Your task to perform on an android device: turn pop-ups on in chrome Image 0: 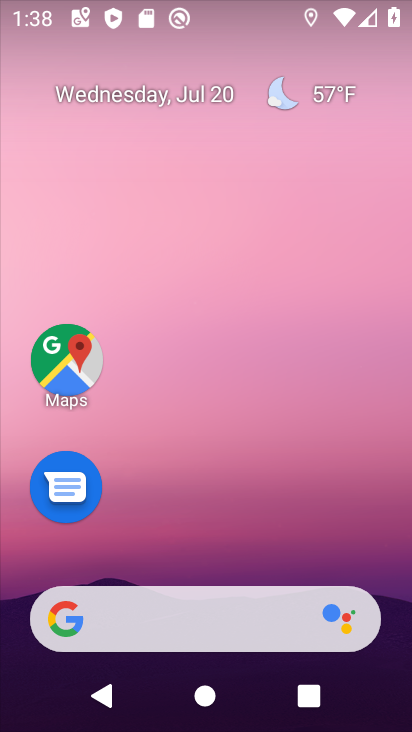
Step 0: drag from (167, 575) to (230, 64)
Your task to perform on an android device: turn pop-ups on in chrome Image 1: 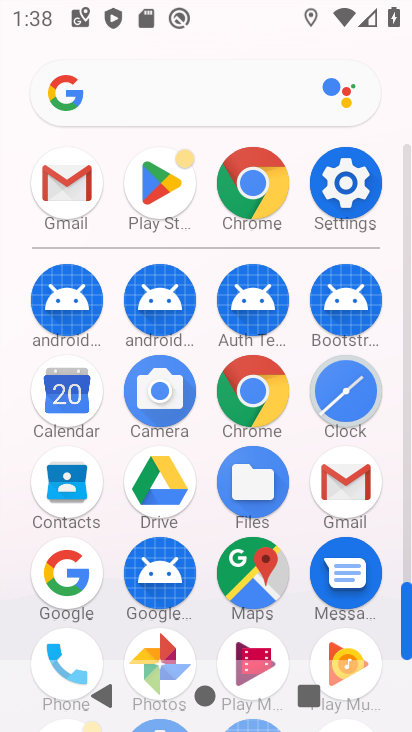
Step 1: click (249, 191)
Your task to perform on an android device: turn pop-ups on in chrome Image 2: 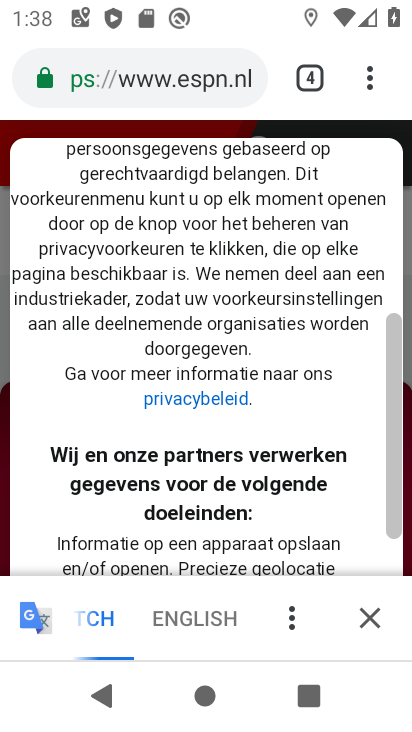
Step 2: drag from (376, 67) to (117, 553)
Your task to perform on an android device: turn pop-ups on in chrome Image 3: 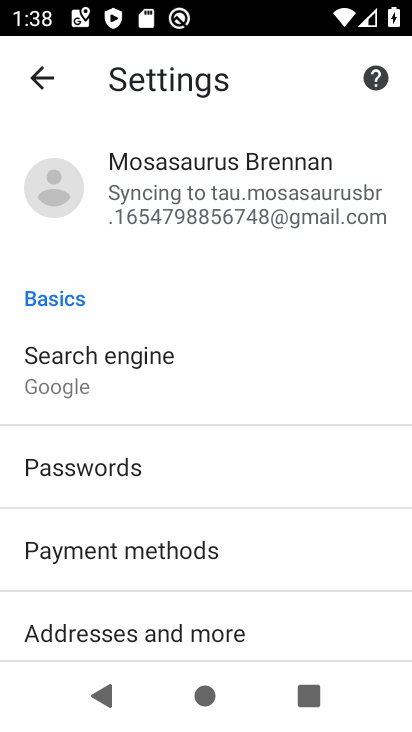
Step 3: drag from (120, 618) to (171, 239)
Your task to perform on an android device: turn pop-ups on in chrome Image 4: 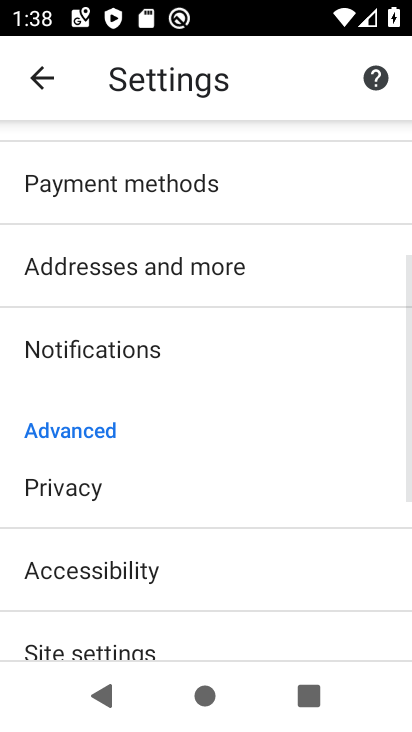
Step 4: drag from (200, 611) to (208, 269)
Your task to perform on an android device: turn pop-ups on in chrome Image 5: 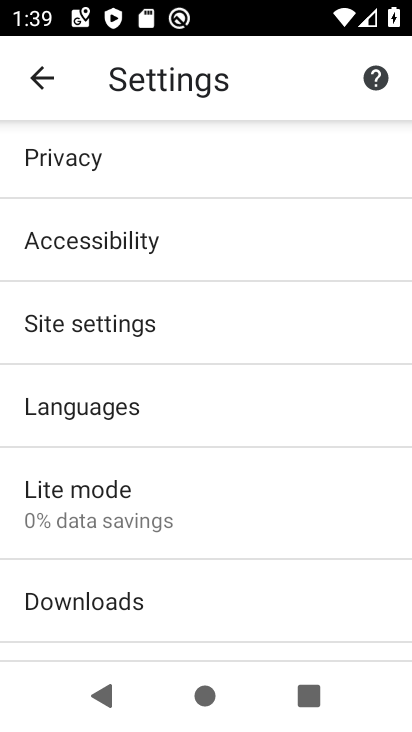
Step 5: click (164, 322)
Your task to perform on an android device: turn pop-ups on in chrome Image 6: 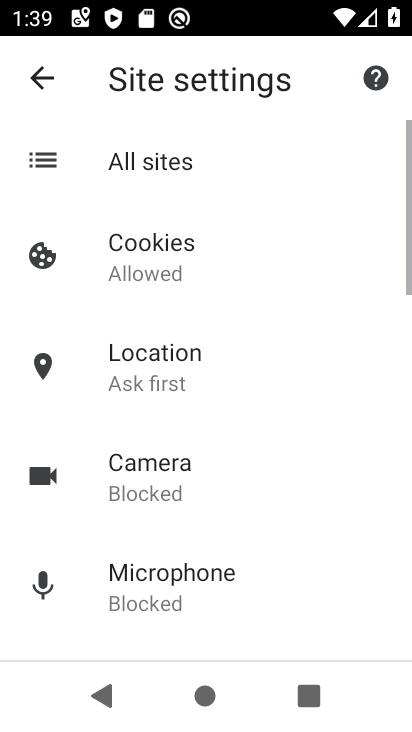
Step 6: drag from (192, 610) to (211, 183)
Your task to perform on an android device: turn pop-ups on in chrome Image 7: 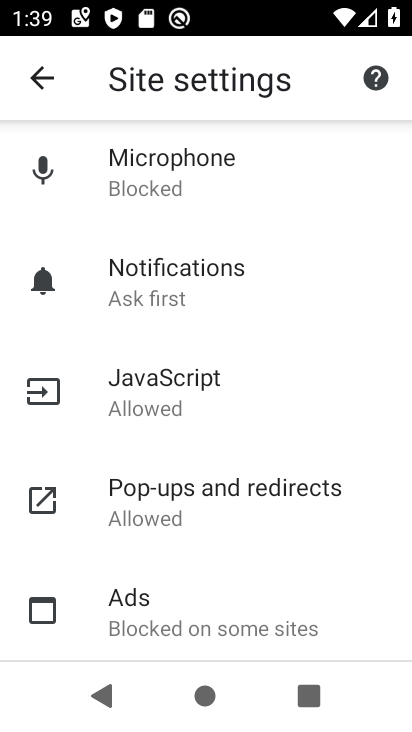
Step 7: click (207, 506)
Your task to perform on an android device: turn pop-ups on in chrome Image 8: 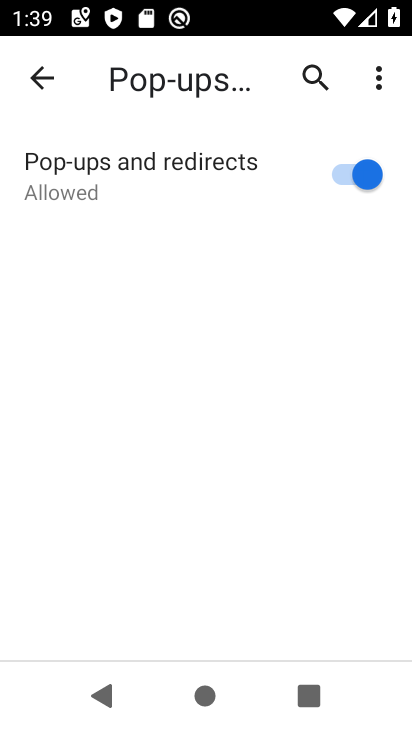
Step 8: task complete